Your task to perform on an android device: open app "LiveIn - Share Your Moment" Image 0: 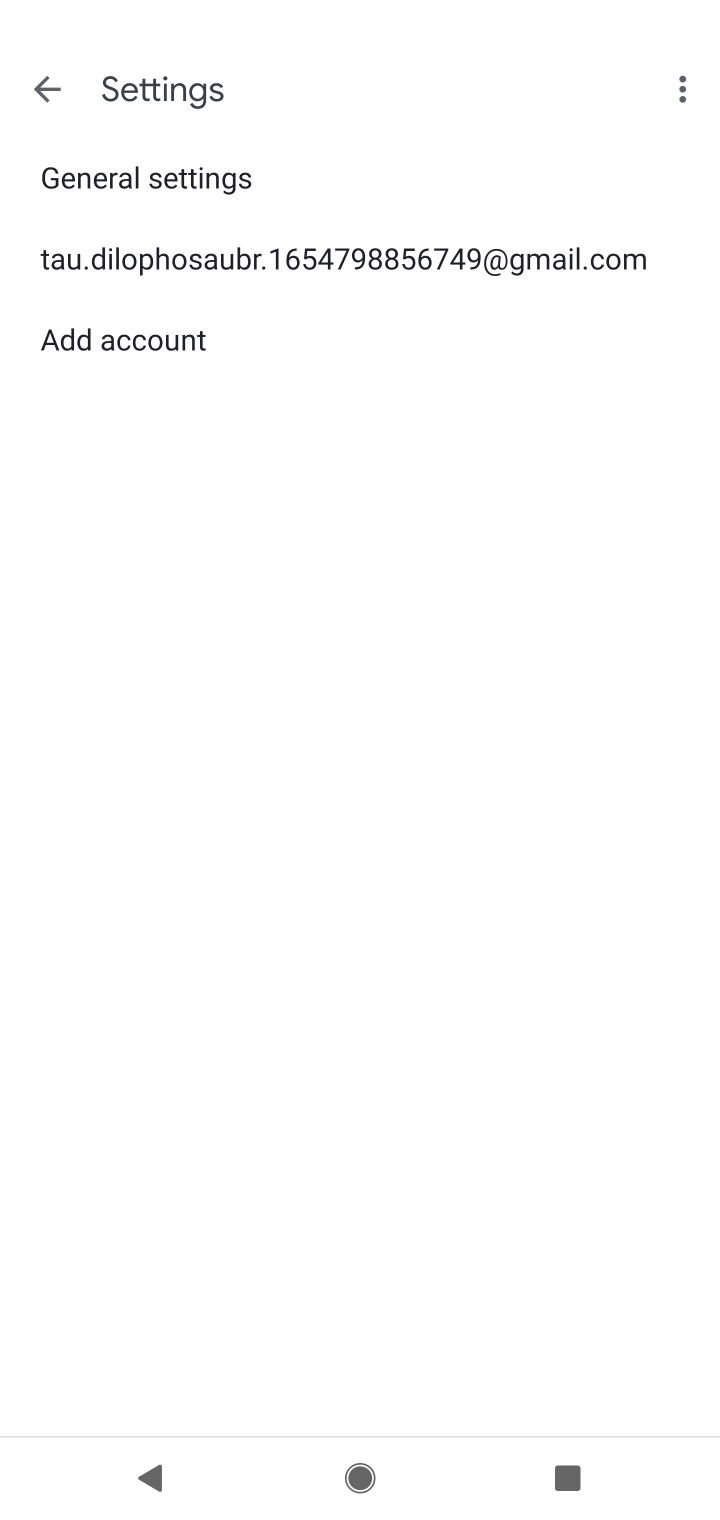
Step 0: press home button
Your task to perform on an android device: open app "LiveIn - Share Your Moment" Image 1: 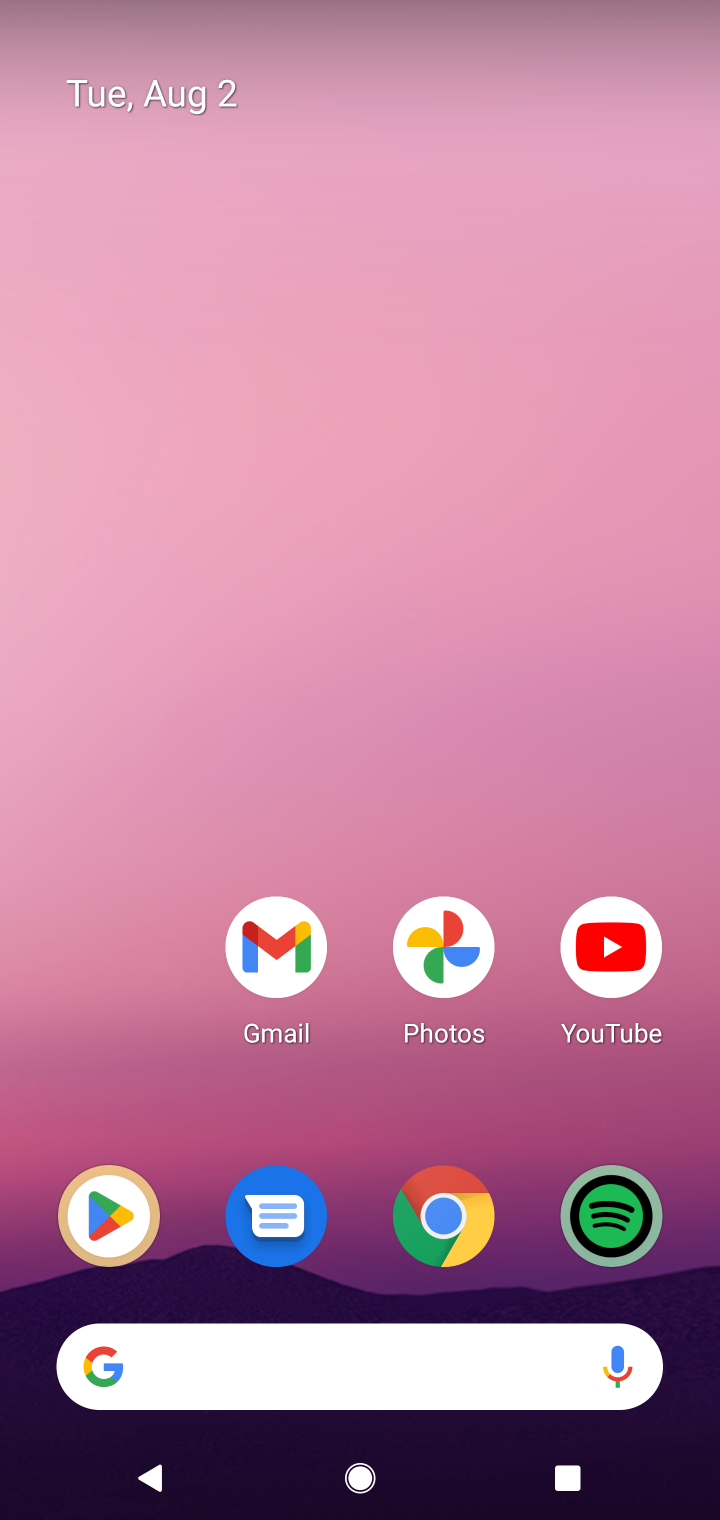
Step 1: click (125, 1248)
Your task to perform on an android device: open app "LiveIn - Share Your Moment" Image 2: 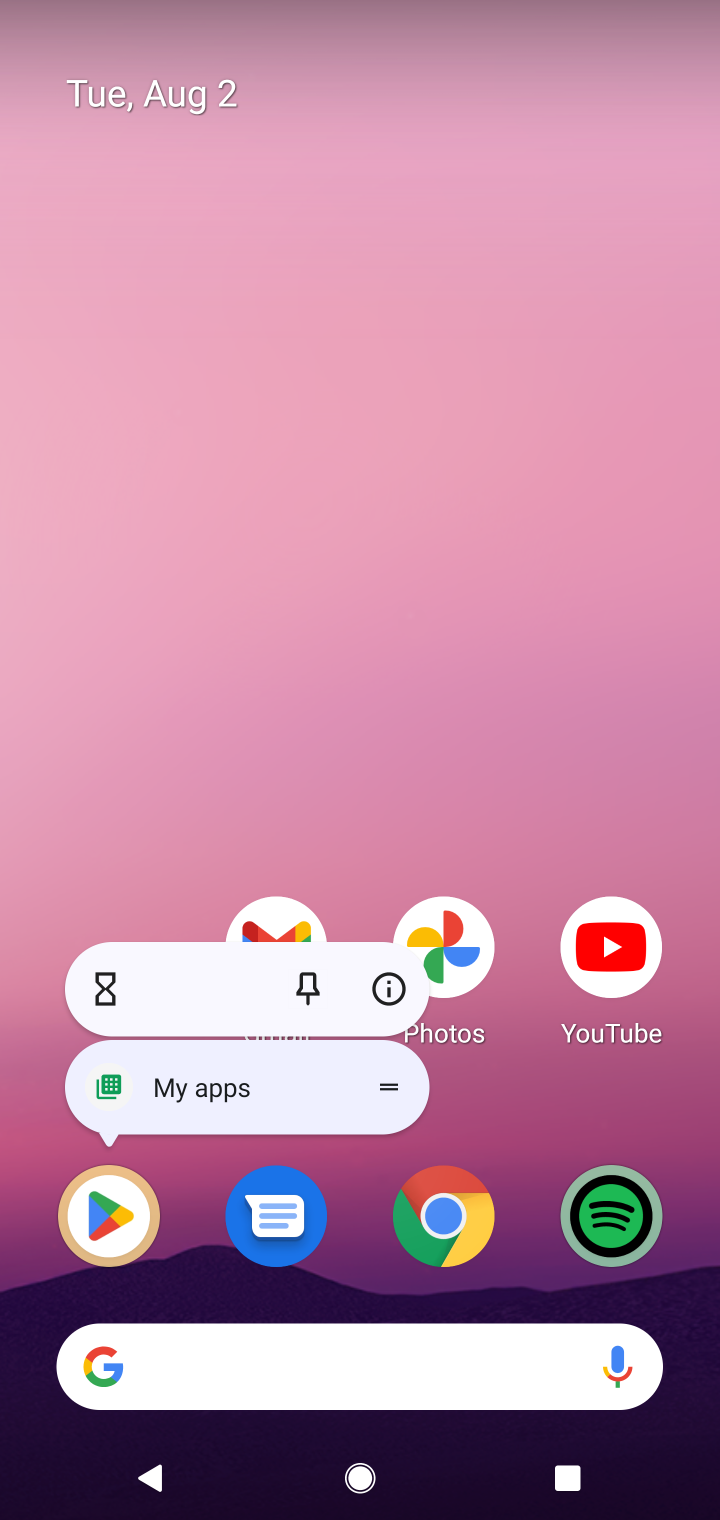
Step 2: click (125, 1242)
Your task to perform on an android device: open app "LiveIn - Share Your Moment" Image 3: 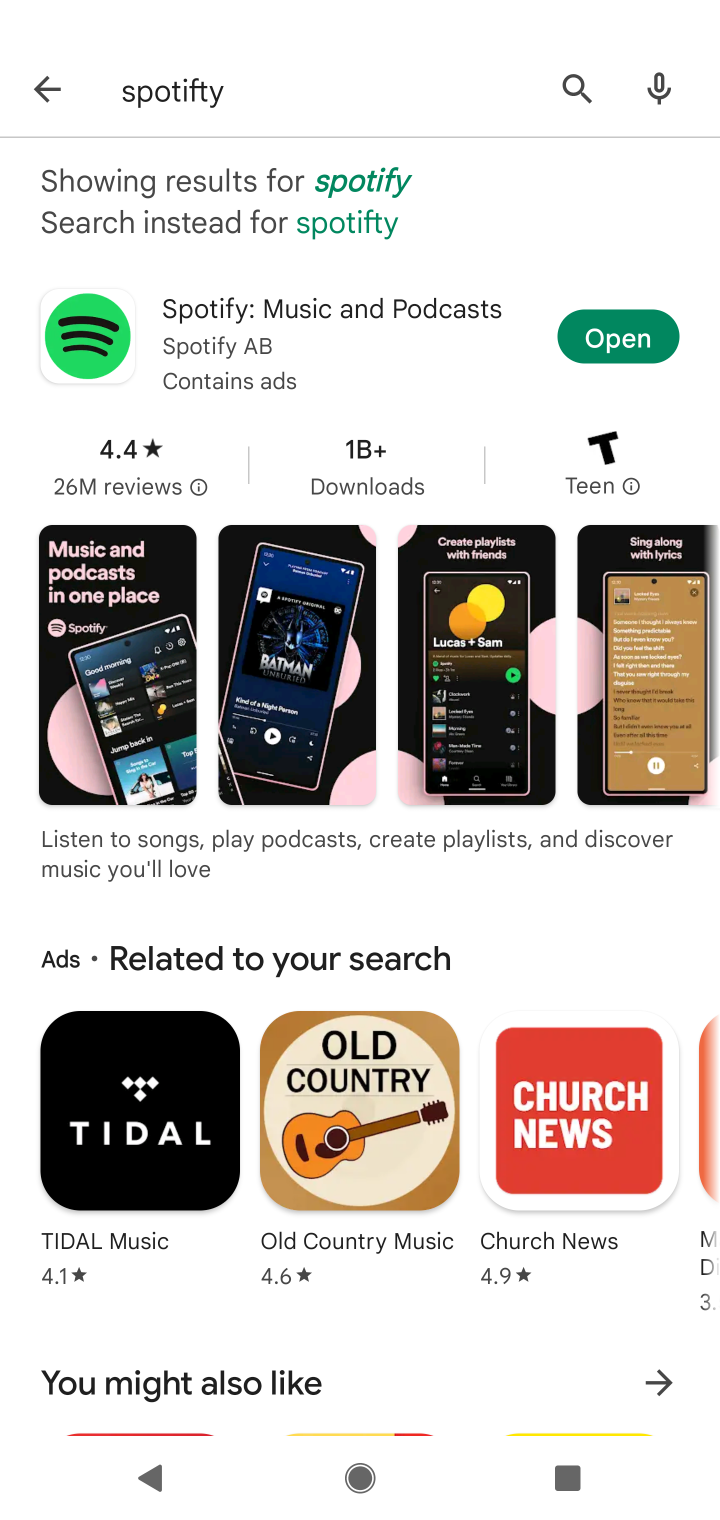
Step 3: click (561, 103)
Your task to perform on an android device: open app "LiveIn - Share Your Moment" Image 4: 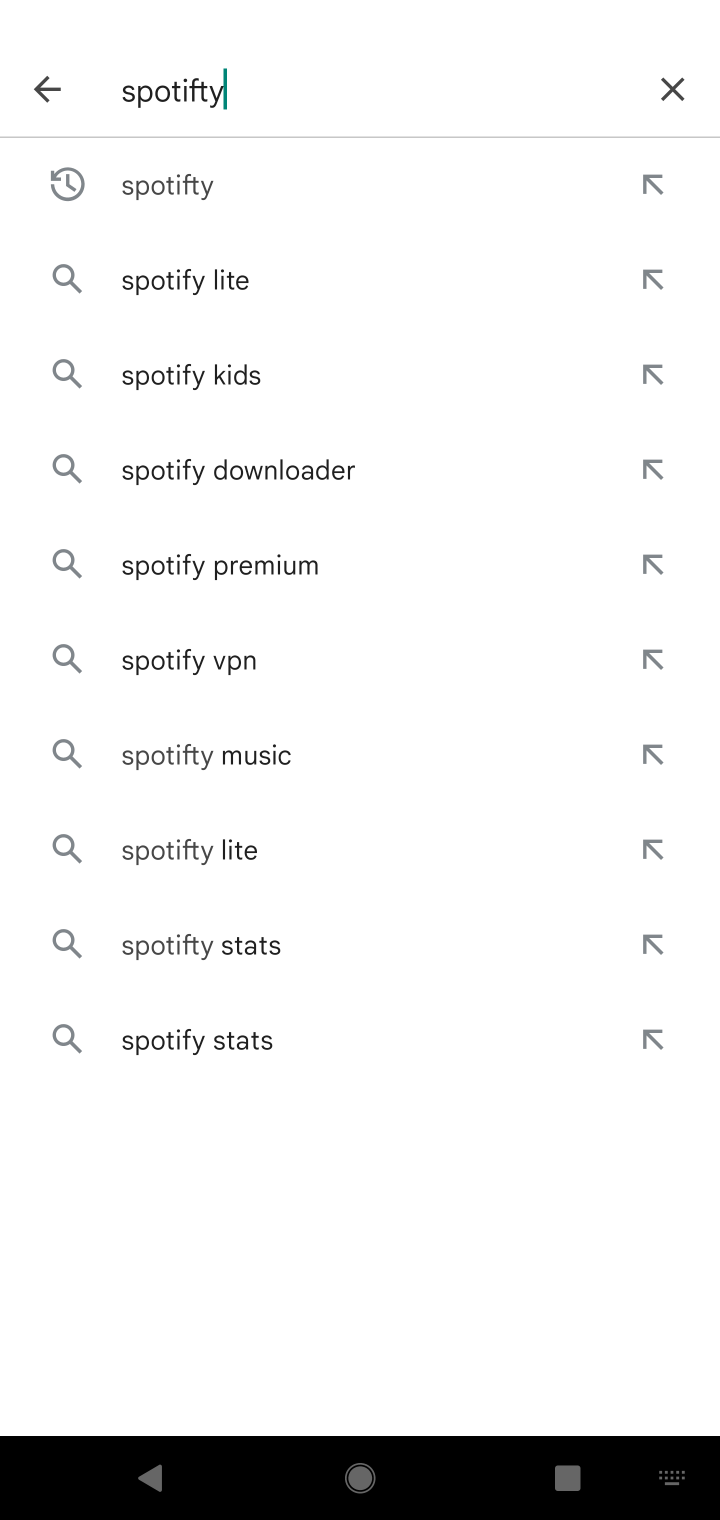
Step 4: click (654, 103)
Your task to perform on an android device: open app "LiveIn - Share Your Moment" Image 5: 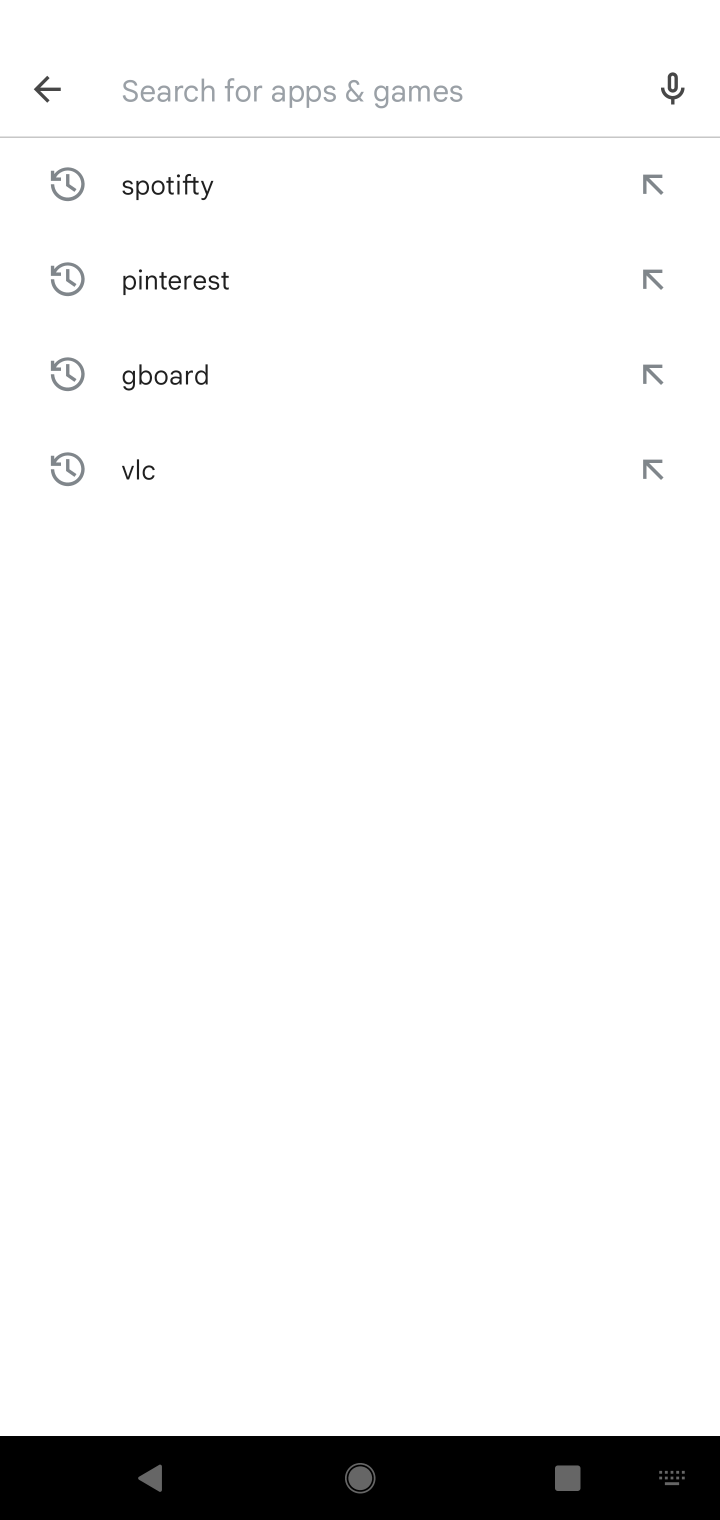
Step 5: click (668, 119)
Your task to perform on an android device: open app "LiveIn - Share Your Moment" Image 6: 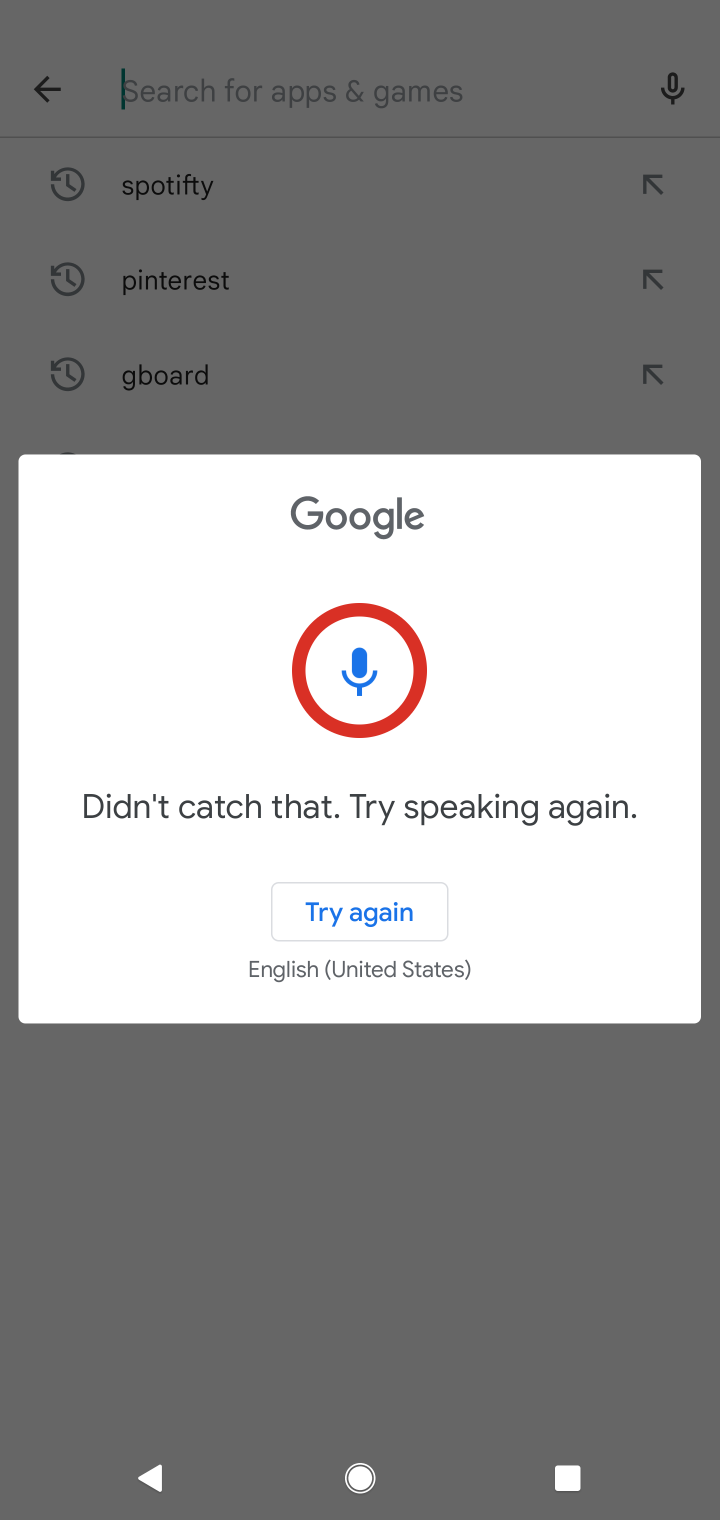
Step 6: type "livein"
Your task to perform on an android device: open app "LiveIn - Share Your Moment" Image 7: 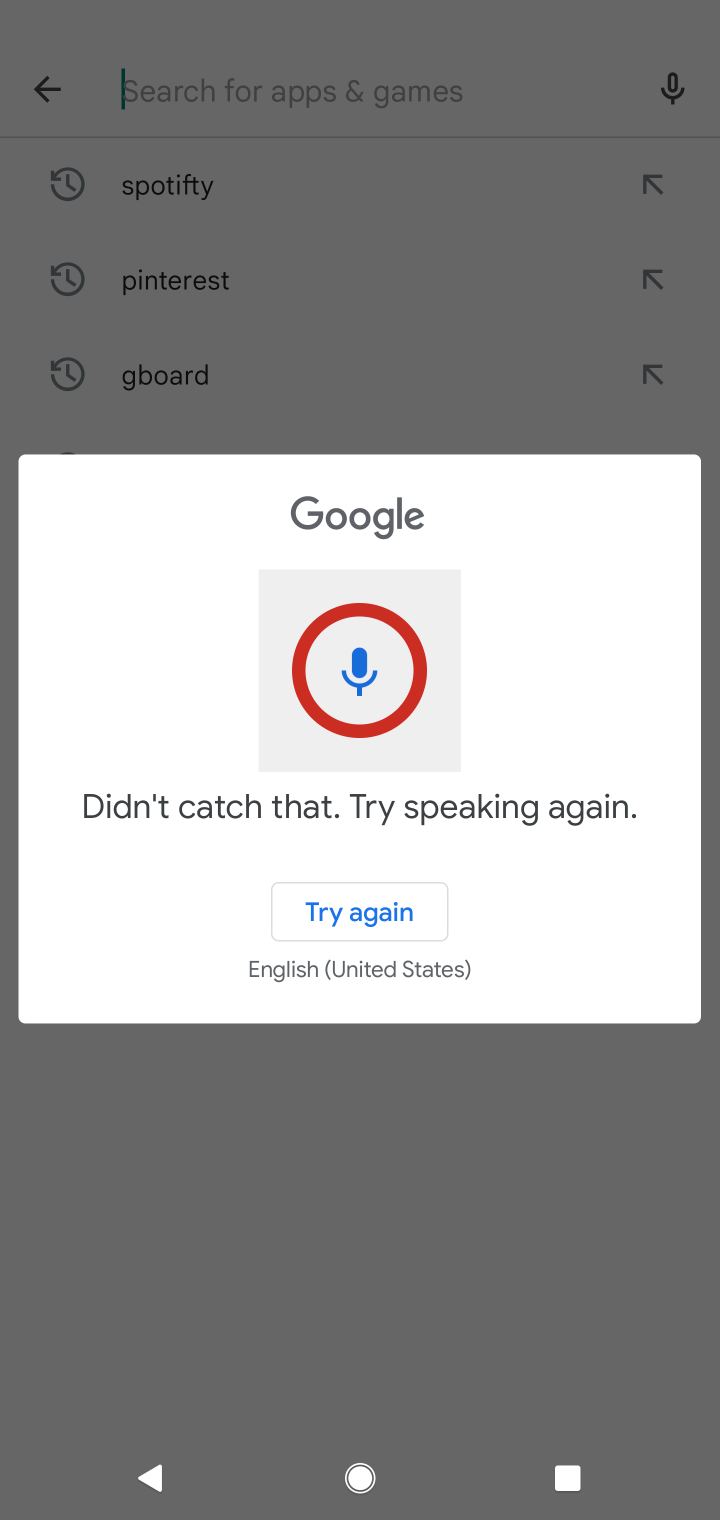
Step 7: click (456, 1038)
Your task to perform on an android device: open app "LiveIn - Share Your Moment" Image 8: 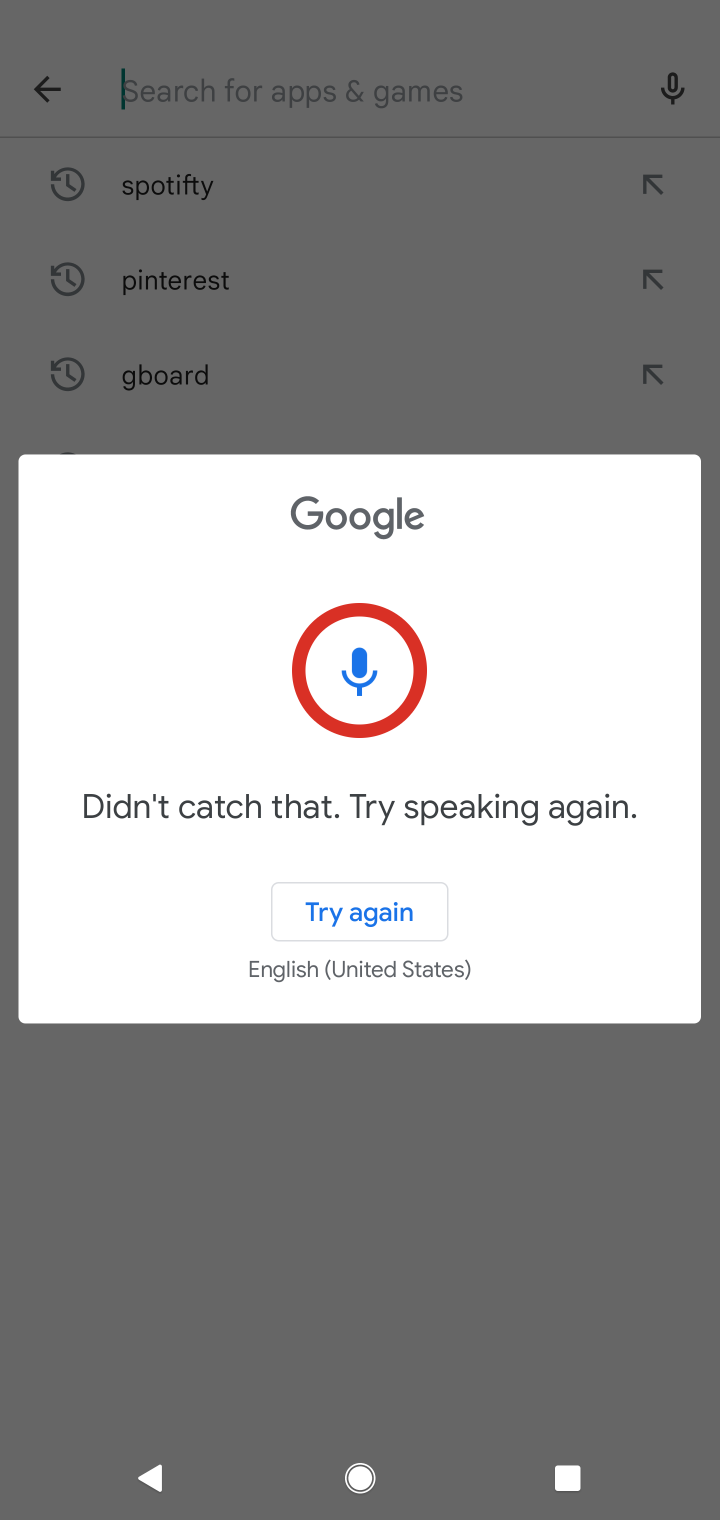
Step 8: click (397, 288)
Your task to perform on an android device: open app "LiveIn - Share Your Moment" Image 9: 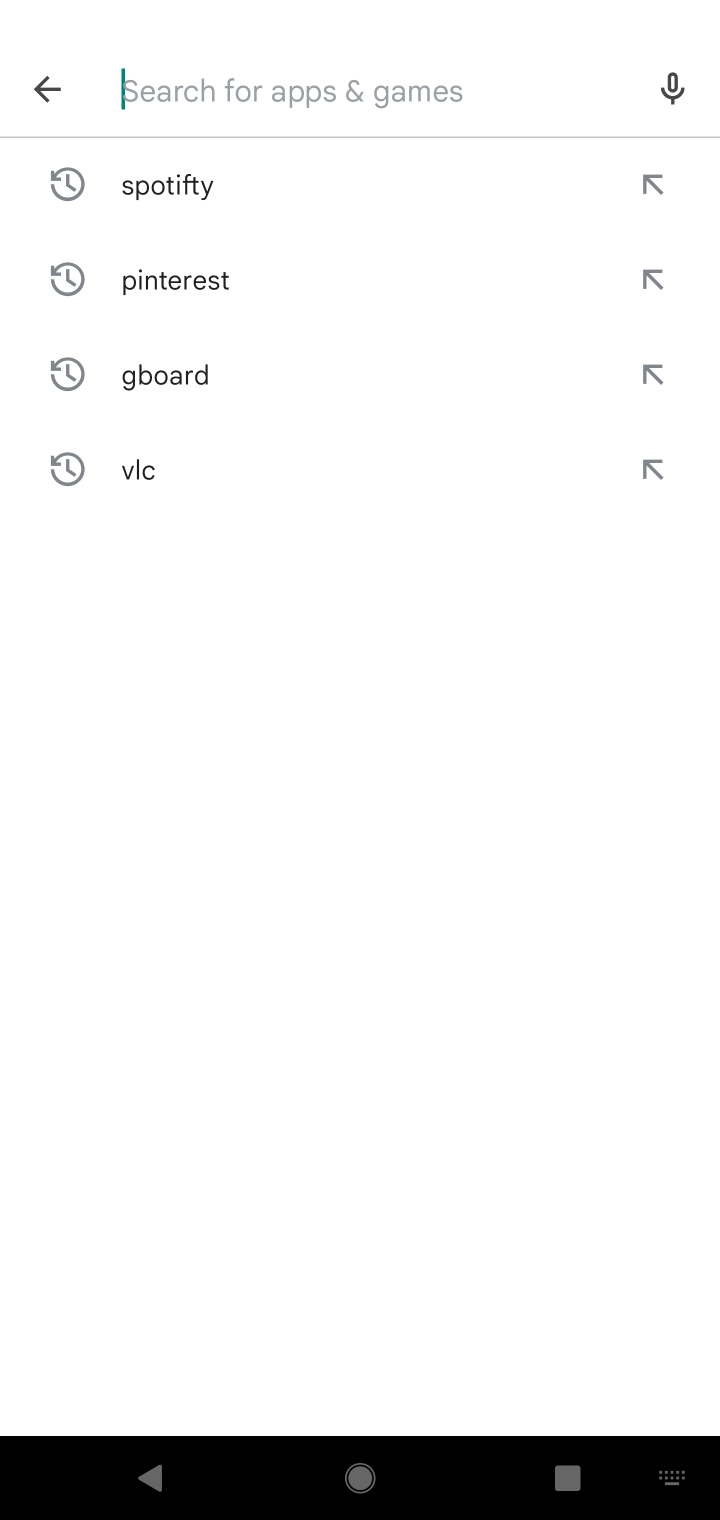
Step 9: click (598, 1135)
Your task to perform on an android device: open app "LiveIn - Share Your Moment" Image 10: 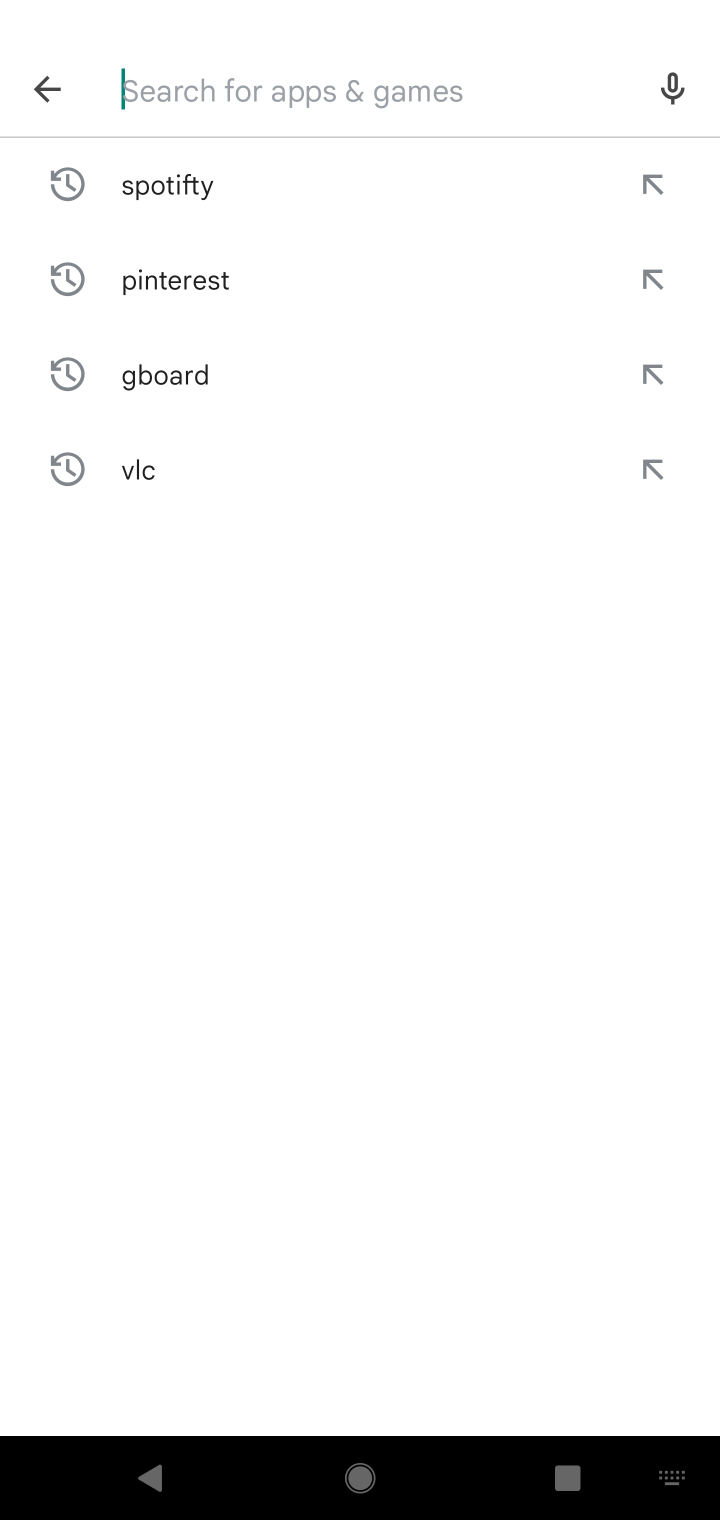
Step 10: click (352, 104)
Your task to perform on an android device: open app "LiveIn - Share Your Moment" Image 11: 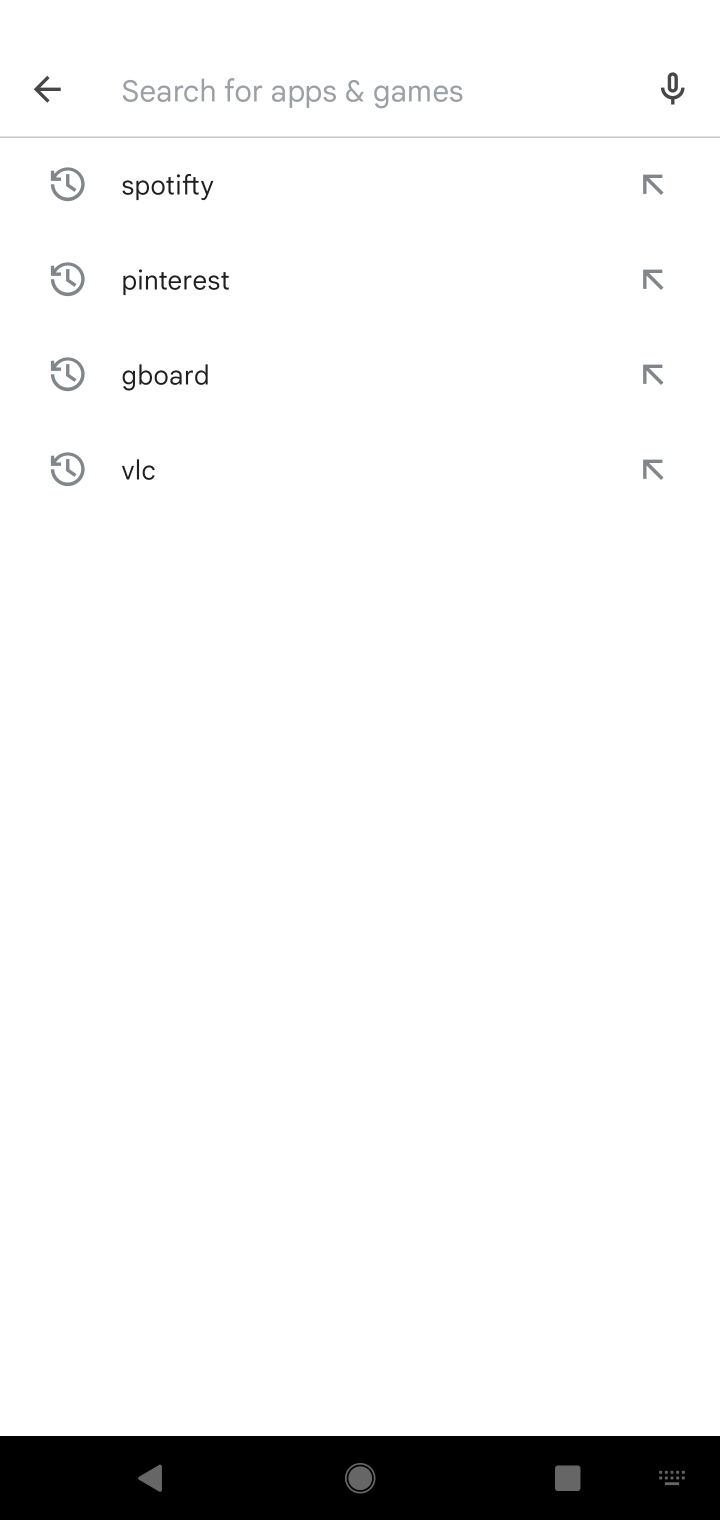
Step 11: type "livein"
Your task to perform on an android device: open app "LiveIn - Share Your Moment" Image 12: 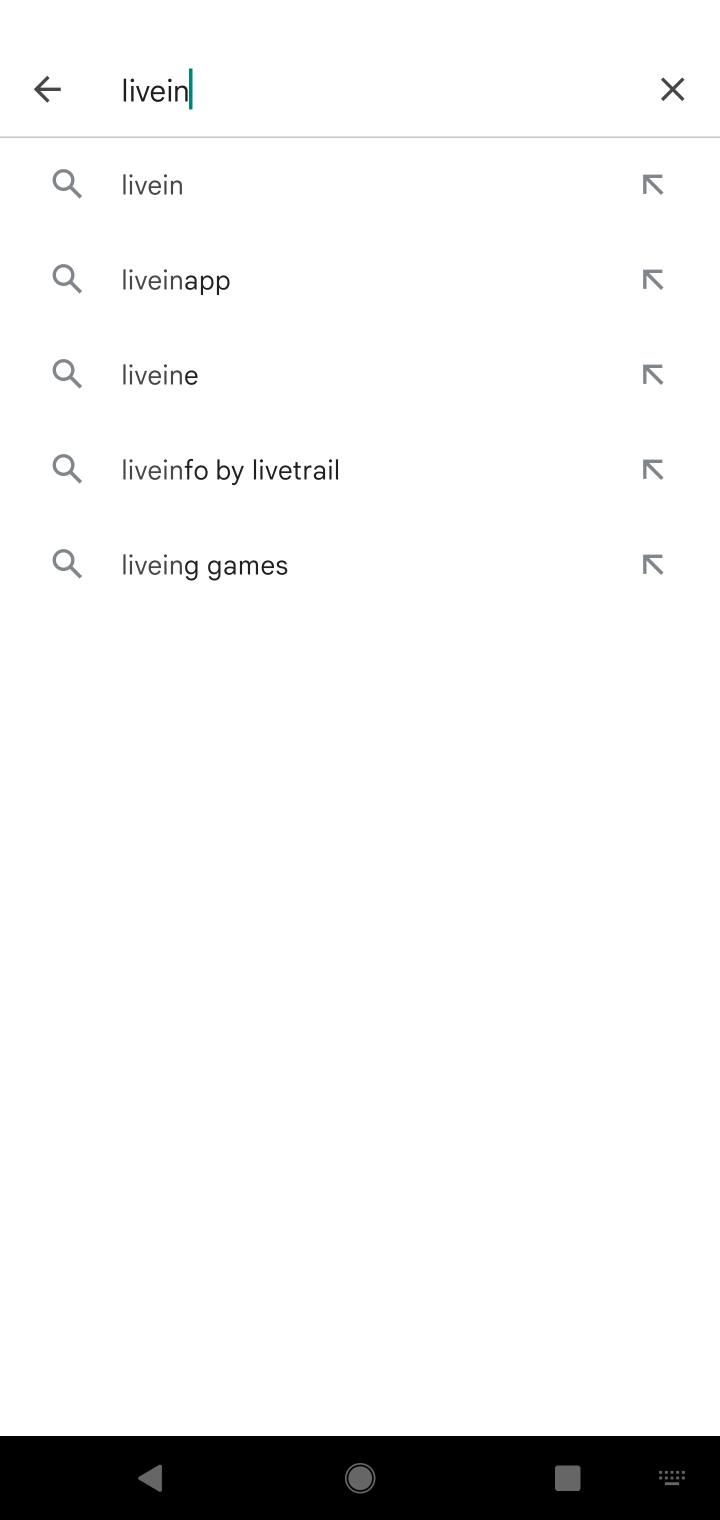
Step 12: click (283, 171)
Your task to perform on an android device: open app "LiveIn - Share Your Moment" Image 13: 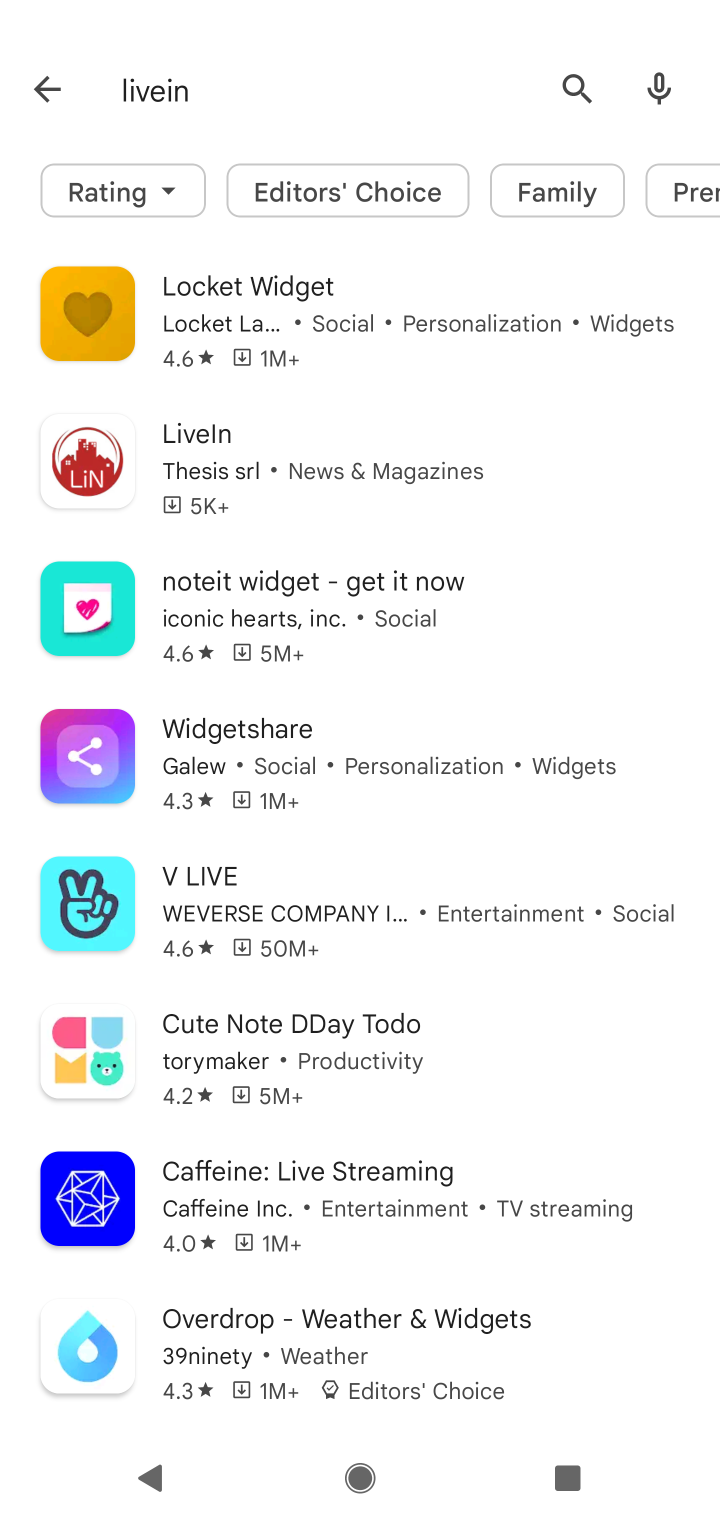
Step 13: task complete